Your task to perform on an android device: change text size in settings app Image 0: 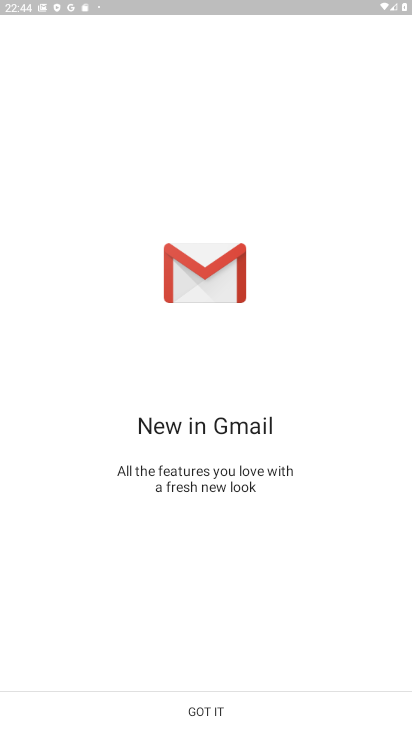
Step 0: press home button
Your task to perform on an android device: change text size in settings app Image 1: 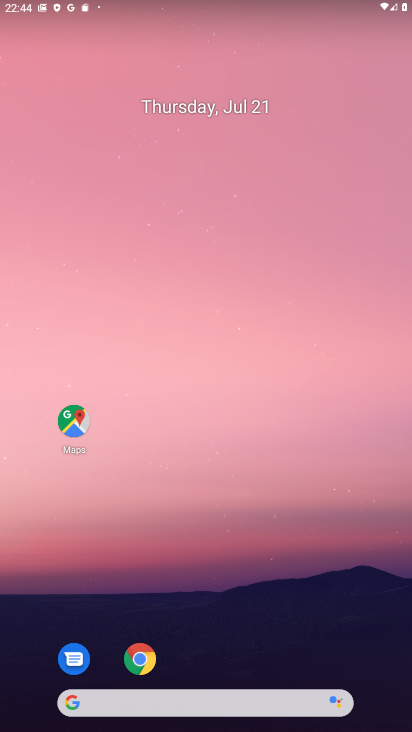
Step 1: drag from (207, 696) to (250, 148)
Your task to perform on an android device: change text size in settings app Image 2: 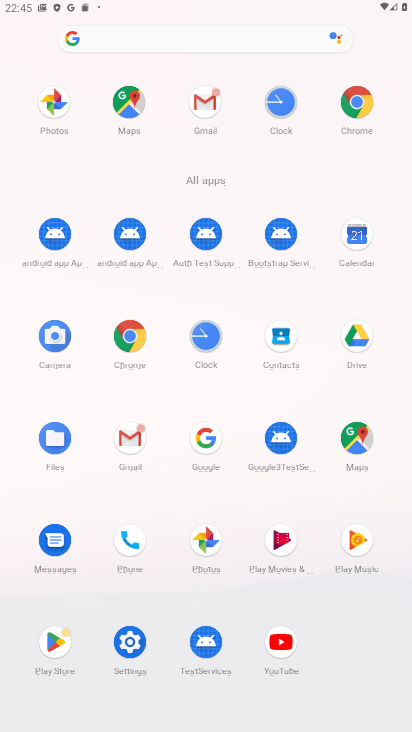
Step 2: click (132, 642)
Your task to perform on an android device: change text size in settings app Image 3: 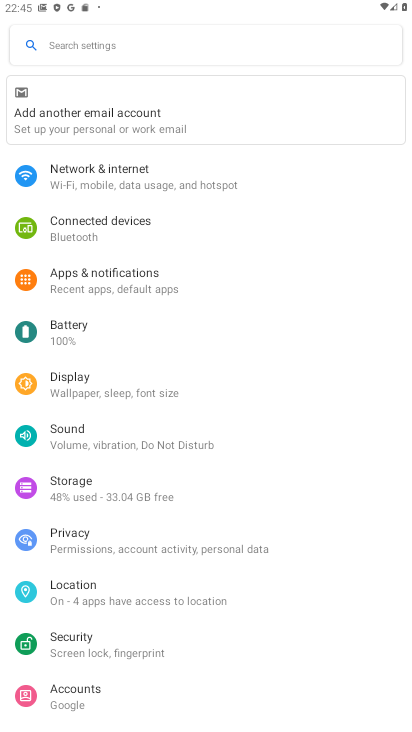
Step 3: drag from (126, 673) to (167, 393)
Your task to perform on an android device: change text size in settings app Image 4: 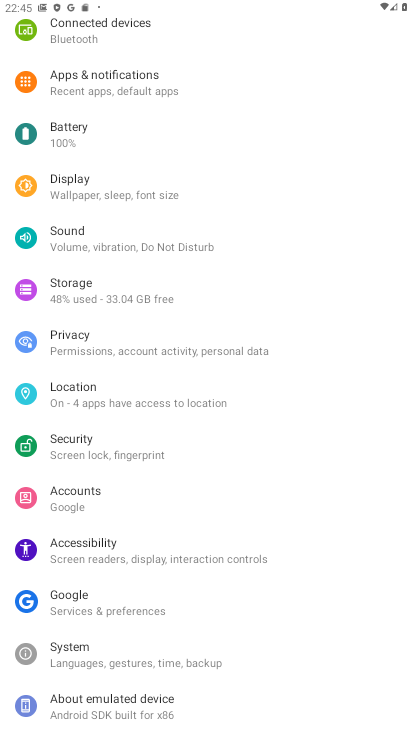
Step 4: click (126, 556)
Your task to perform on an android device: change text size in settings app Image 5: 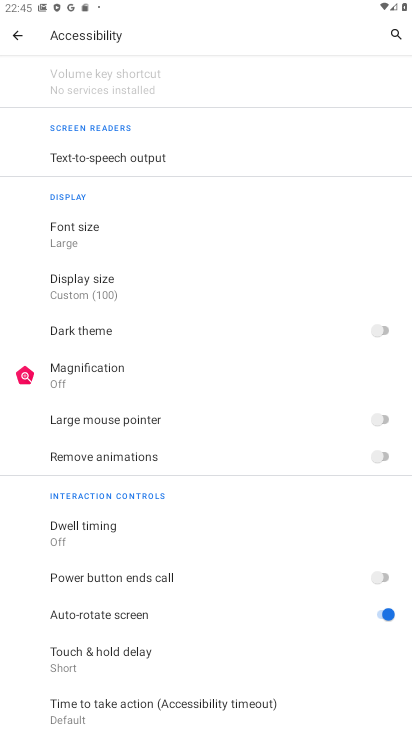
Step 5: click (67, 238)
Your task to perform on an android device: change text size in settings app Image 6: 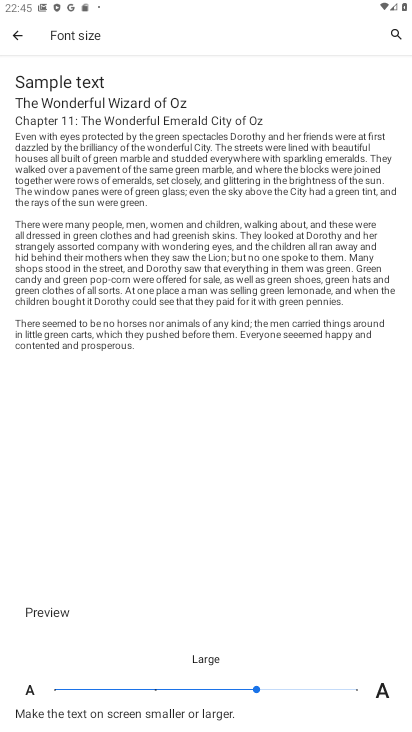
Step 6: click (355, 688)
Your task to perform on an android device: change text size in settings app Image 7: 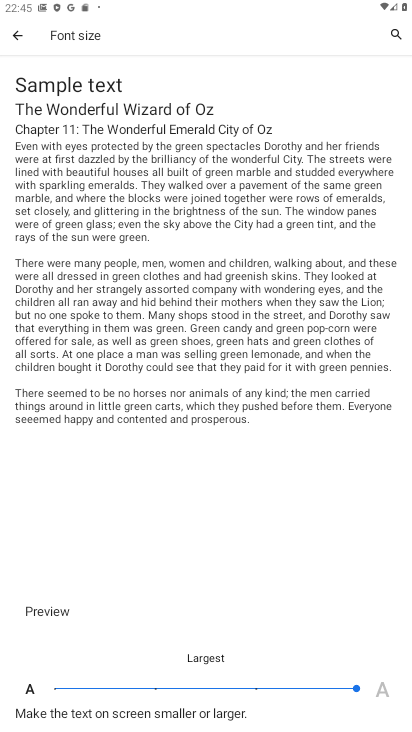
Step 7: task complete